Your task to perform on an android device: Open Youtube and go to the subscriptions tab Image 0: 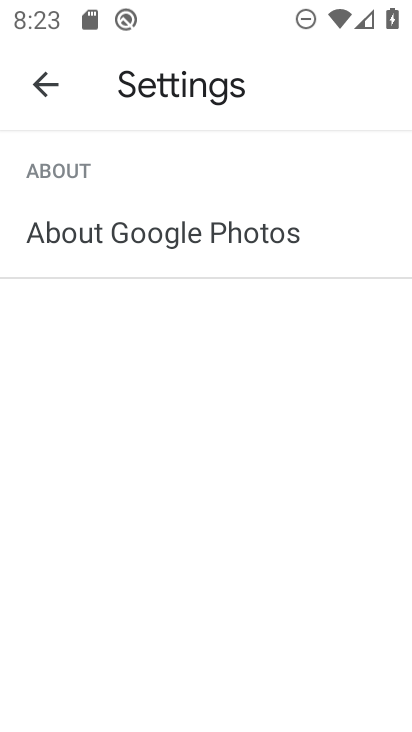
Step 0: click (72, 412)
Your task to perform on an android device: Open Youtube and go to the subscriptions tab Image 1: 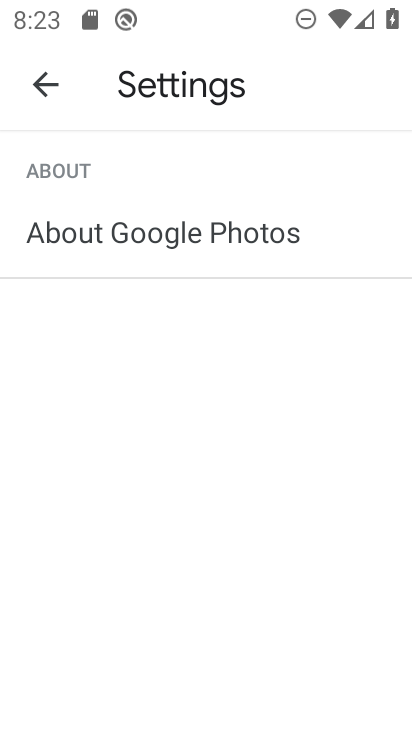
Step 1: press home button
Your task to perform on an android device: Open Youtube and go to the subscriptions tab Image 2: 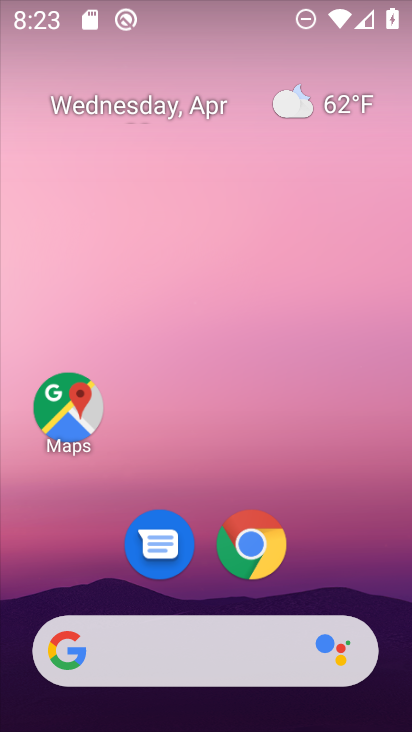
Step 2: drag from (219, 585) to (255, 162)
Your task to perform on an android device: Open Youtube and go to the subscriptions tab Image 3: 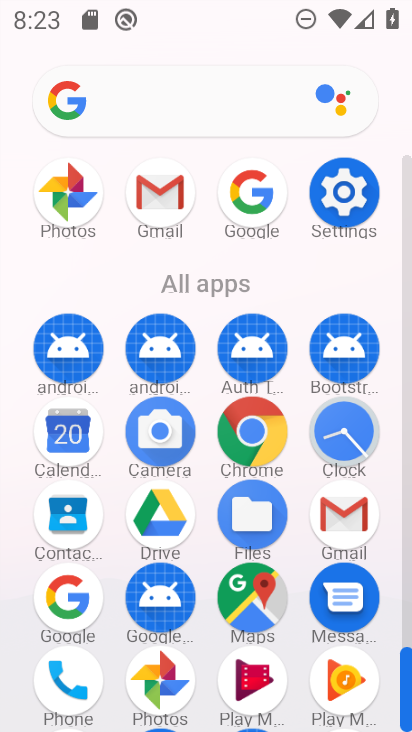
Step 3: drag from (192, 652) to (219, 215)
Your task to perform on an android device: Open Youtube and go to the subscriptions tab Image 4: 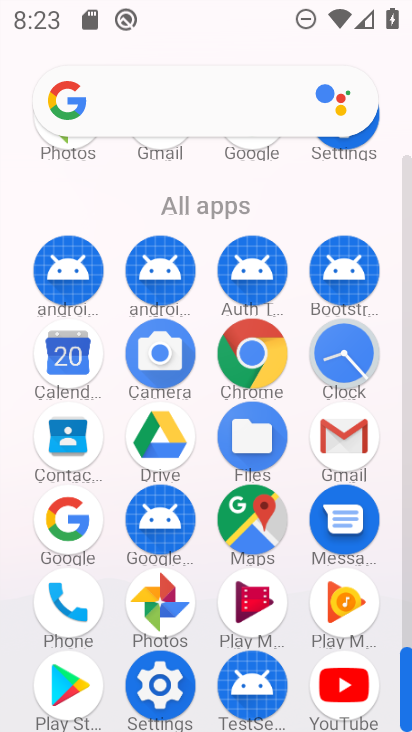
Step 4: click (341, 689)
Your task to perform on an android device: Open Youtube and go to the subscriptions tab Image 5: 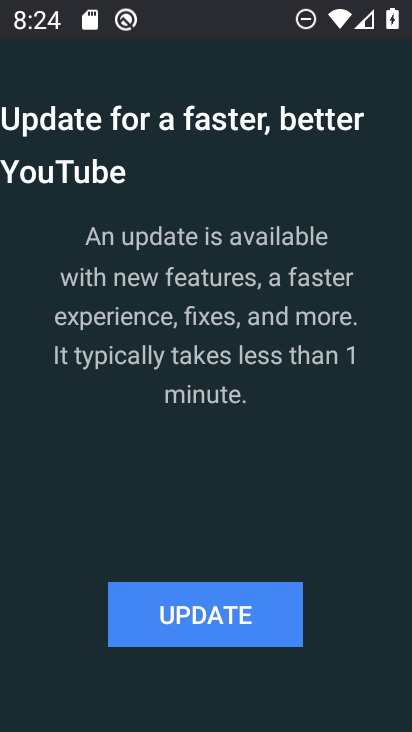
Step 5: click (229, 592)
Your task to perform on an android device: Open Youtube and go to the subscriptions tab Image 6: 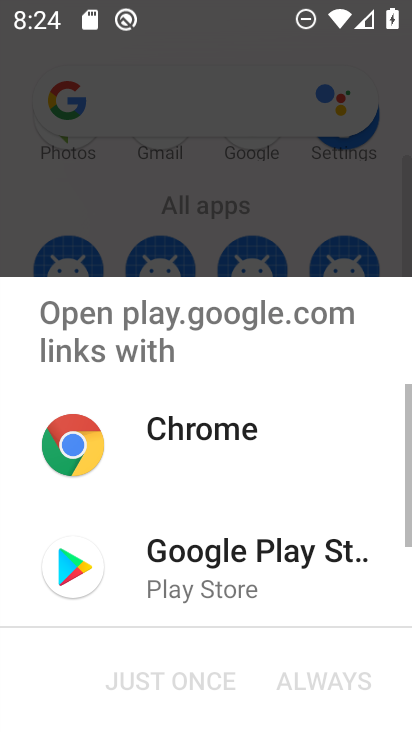
Step 6: click (231, 546)
Your task to perform on an android device: Open Youtube and go to the subscriptions tab Image 7: 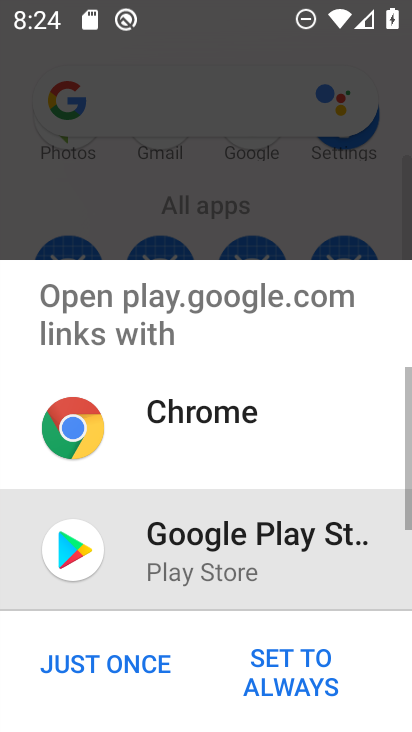
Step 7: drag from (193, 670) to (135, 648)
Your task to perform on an android device: Open Youtube and go to the subscriptions tab Image 8: 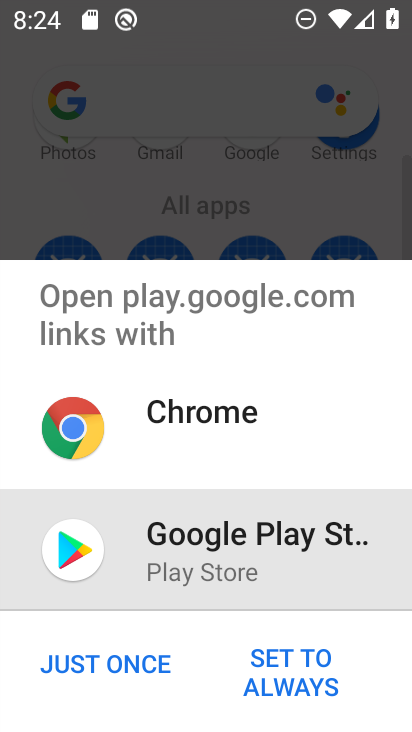
Step 8: click (128, 660)
Your task to perform on an android device: Open Youtube and go to the subscriptions tab Image 9: 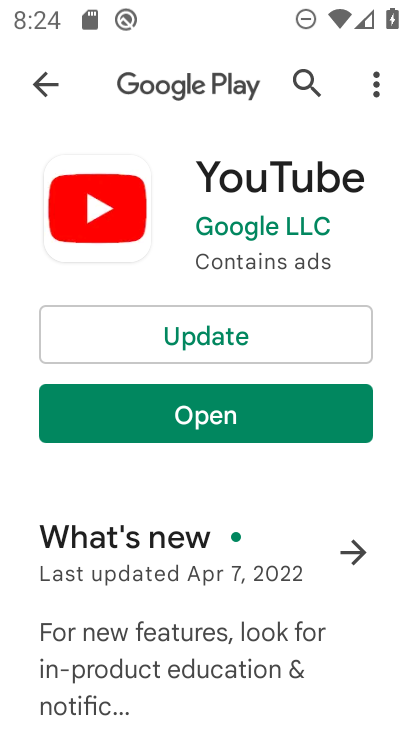
Step 9: click (207, 332)
Your task to perform on an android device: Open Youtube and go to the subscriptions tab Image 10: 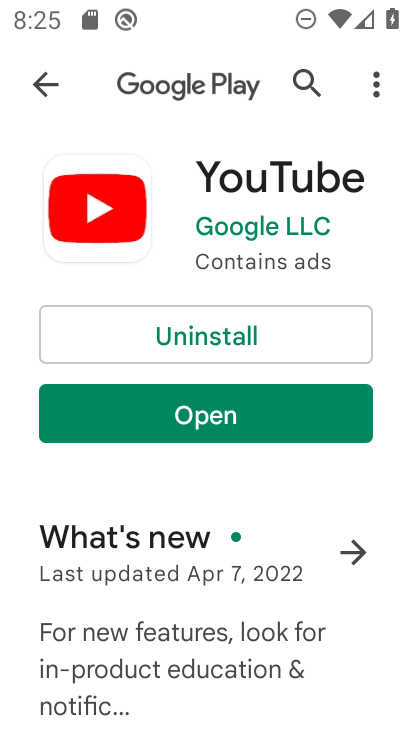
Step 10: click (217, 407)
Your task to perform on an android device: Open Youtube and go to the subscriptions tab Image 11: 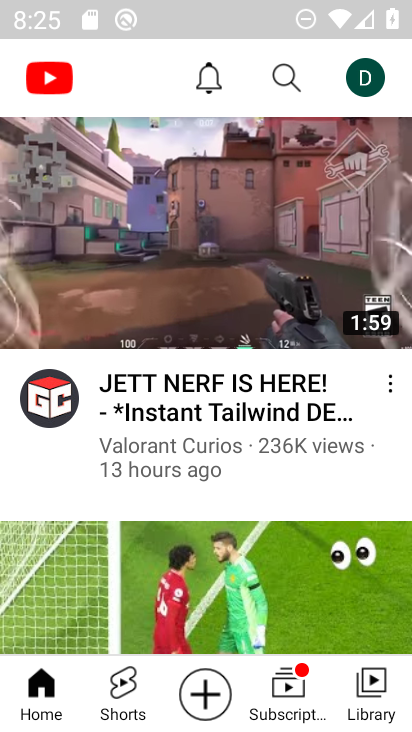
Step 11: click (284, 678)
Your task to perform on an android device: Open Youtube and go to the subscriptions tab Image 12: 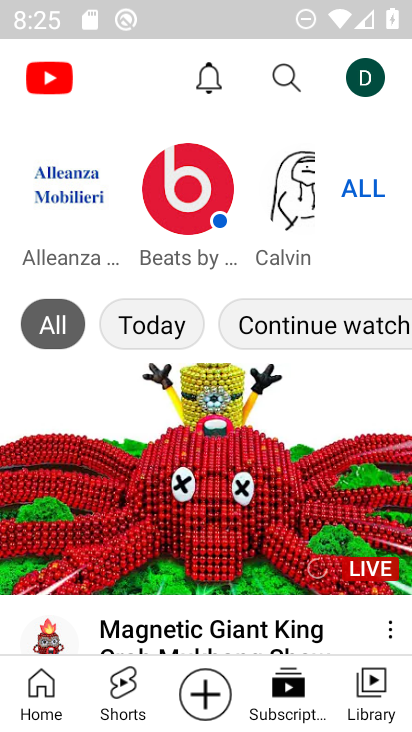
Step 12: task complete